Your task to perform on an android device: Open Android settings Image 0: 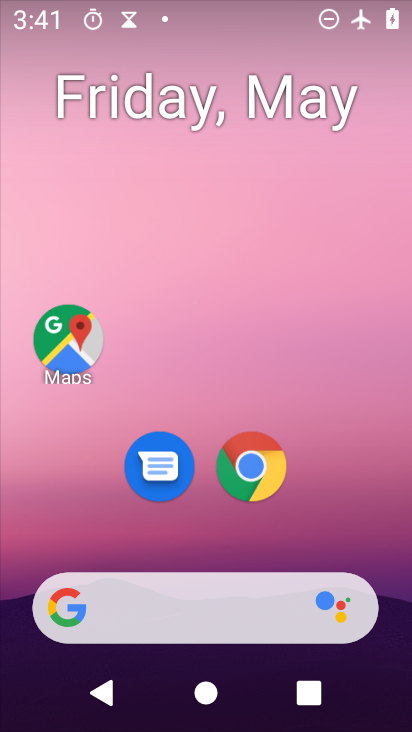
Step 0: drag from (368, 500) to (351, 49)
Your task to perform on an android device: Open Android settings Image 1: 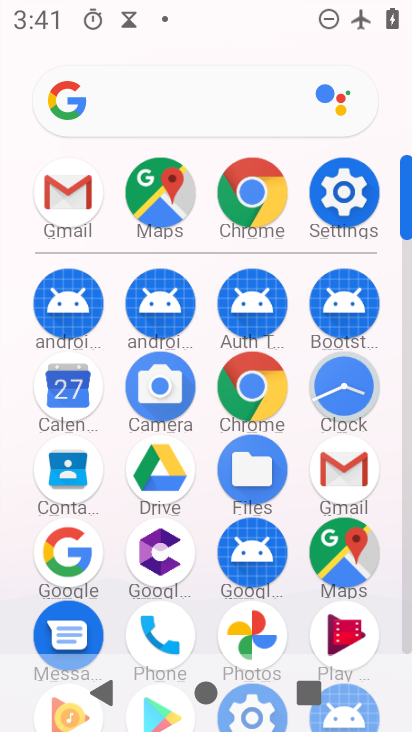
Step 1: click (352, 187)
Your task to perform on an android device: Open Android settings Image 2: 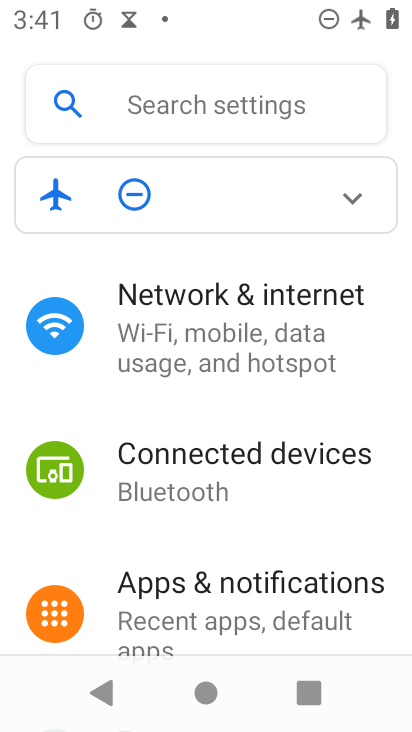
Step 2: task complete